Your task to perform on an android device: delete the emails in spam in the gmail app Image 0: 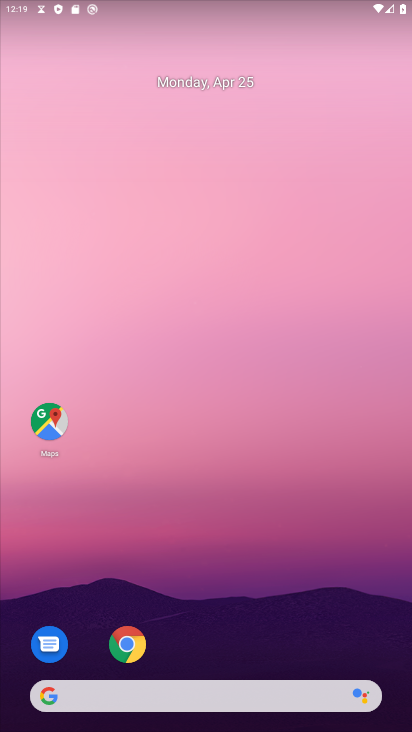
Step 0: drag from (347, 629) to (345, 40)
Your task to perform on an android device: delete the emails in spam in the gmail app Image 1: 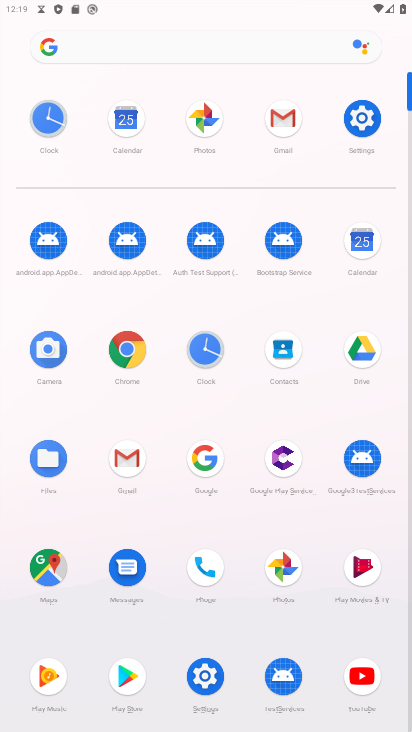
Step 1: click (281, 118)
Your task to perform on an android device: delete the emails in spam in the gmail app Image 2: 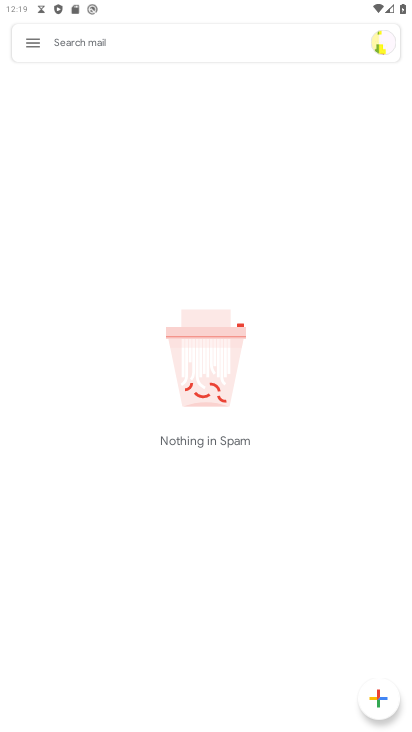
Step 2: click (35, 41)
Your task to perform on an android device: delete the emails in spam in the gmail app Image 3: 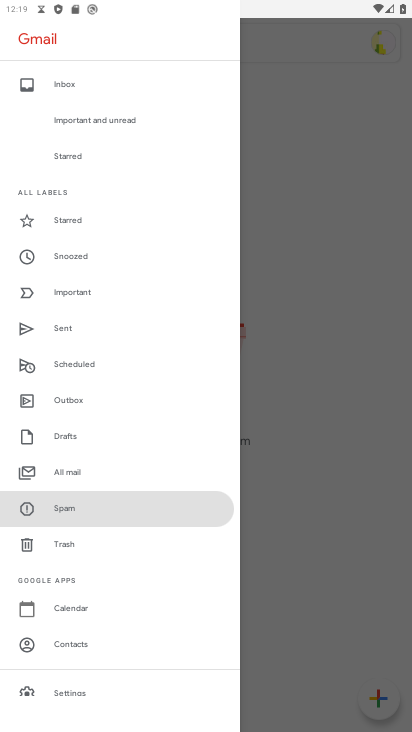
Step 3: click (63, 511)
Your task to perform on an android device: delete the emails in spam in the gmail app Image 4: 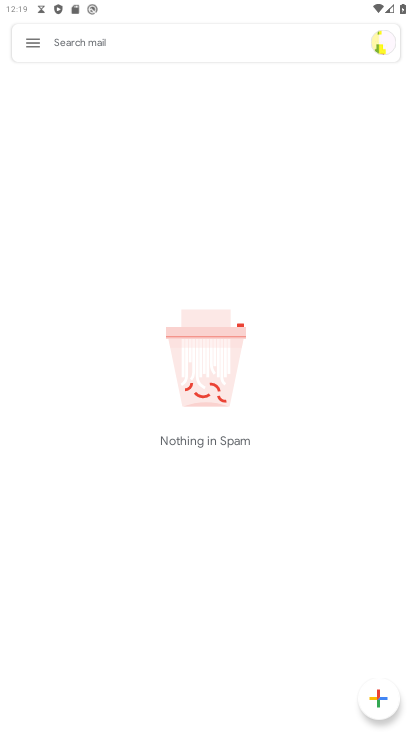
Step 4: task complete